Your task to perform on an android device: Clear all items from cart on bestbuy.com. Search for "logitech g pro" on bestbuy.com, select the first entry, add it to the cart, then select checkout. Image 0: 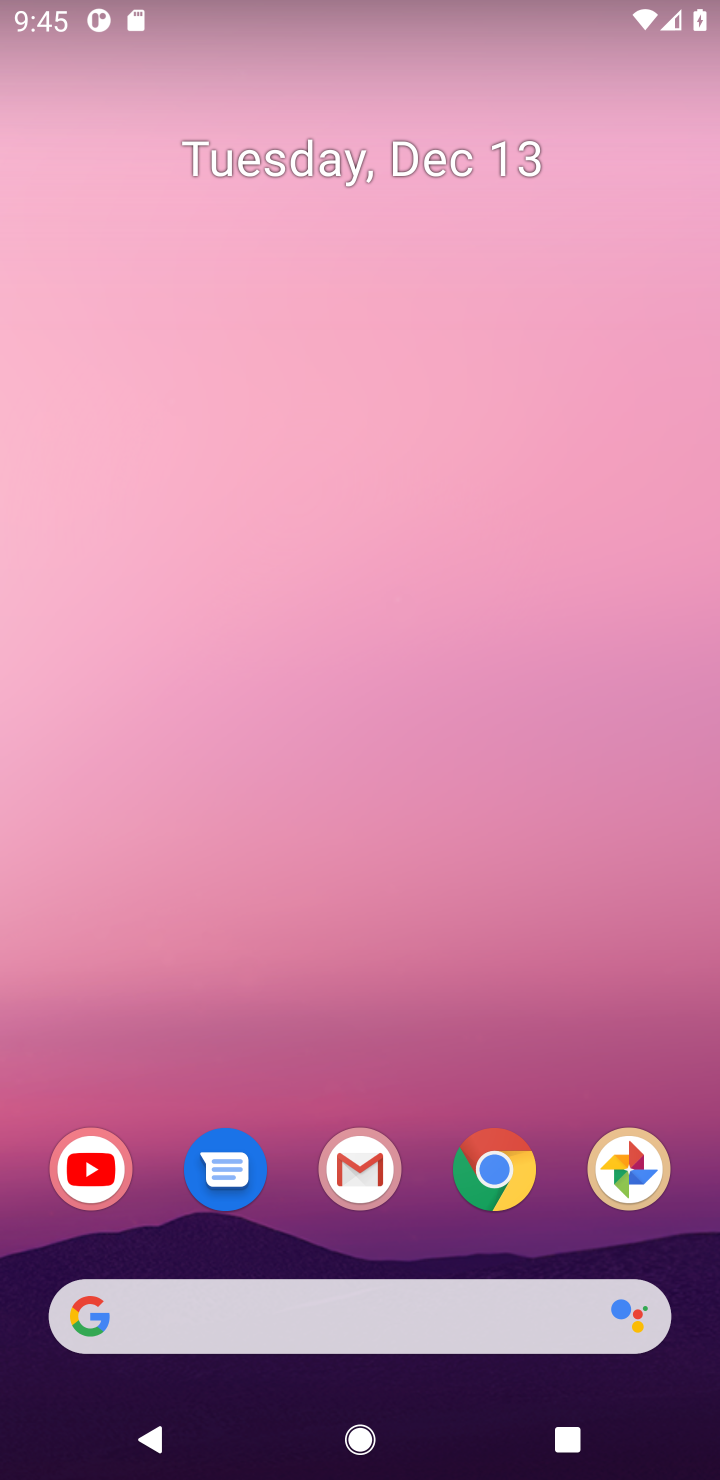
Step 0: click (506, 1140)
Your task to perform on an android device: Clear all items from cart on bestbuy.com. Search for "logitech g pro" on bestbuy.com, select the first entry, add it to the cart, then select checkout. Image 1: 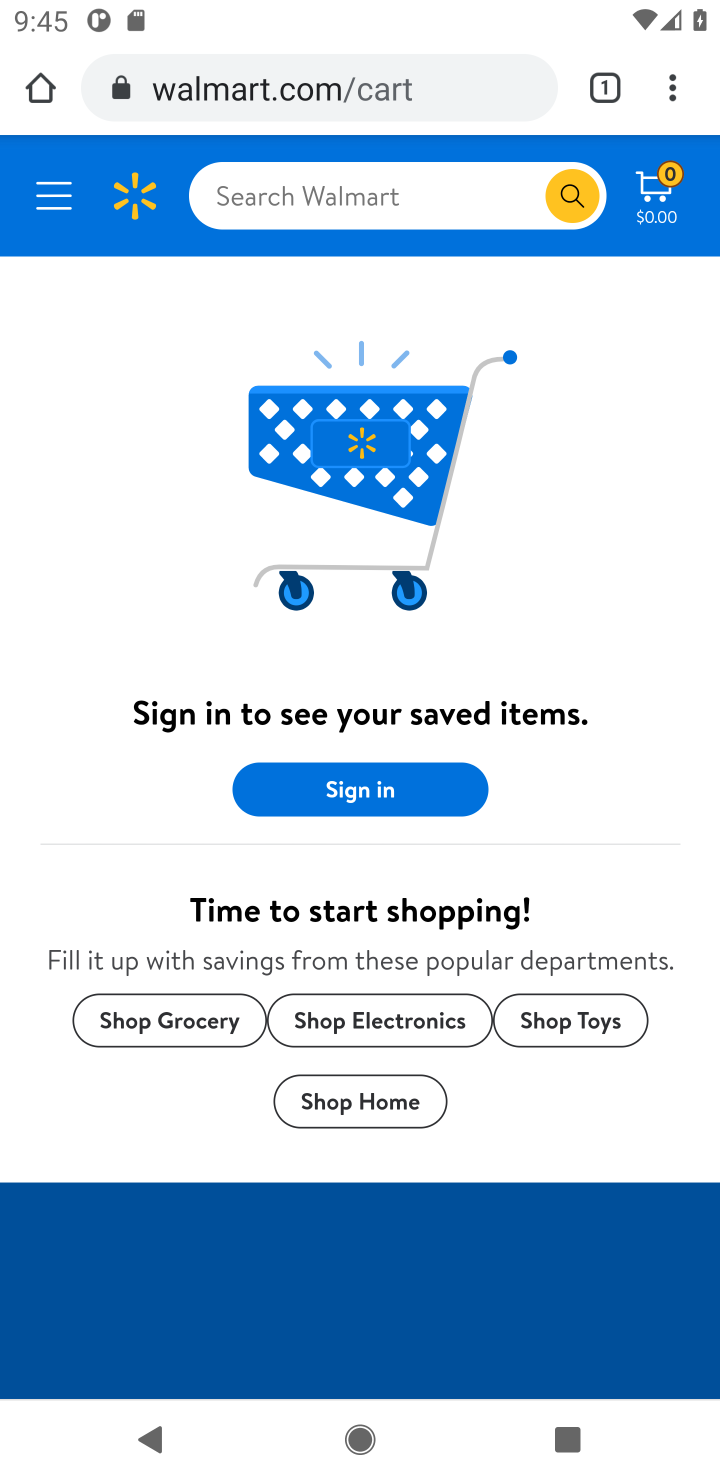
Step 1: press home button
Your task to perform on an android device: Clear all items from cart on bestbuy.com. Search for "logitech g pro" on bestbuy.com, select the first entry, add it to the cart, then select checkout. Image 2: 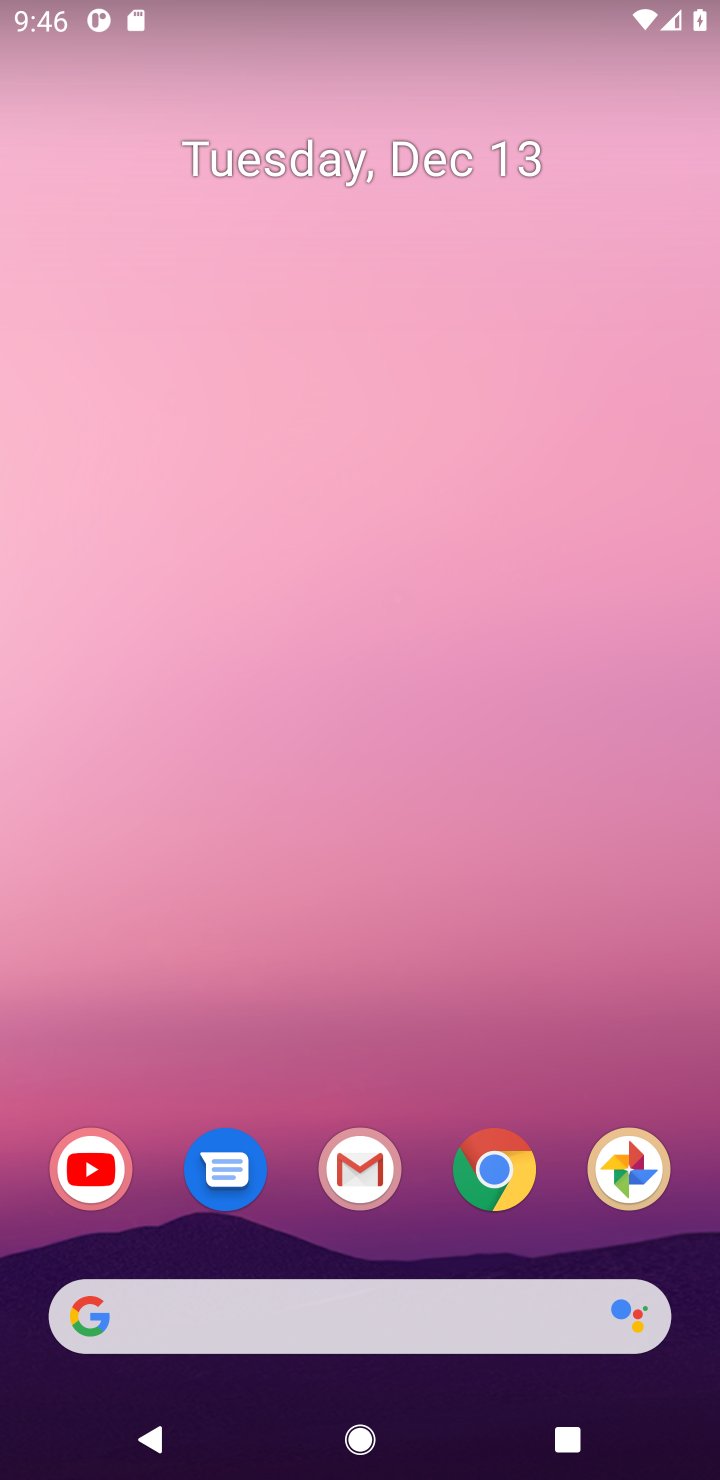
Step 2: click (509, 1195)
Your task to perform on an android device: Clear all items from cart on bestbuy.com. Search for "logitech g pro" on bestbuy.com, select the first entry, add it to the cart, then select checkout. Image 3: 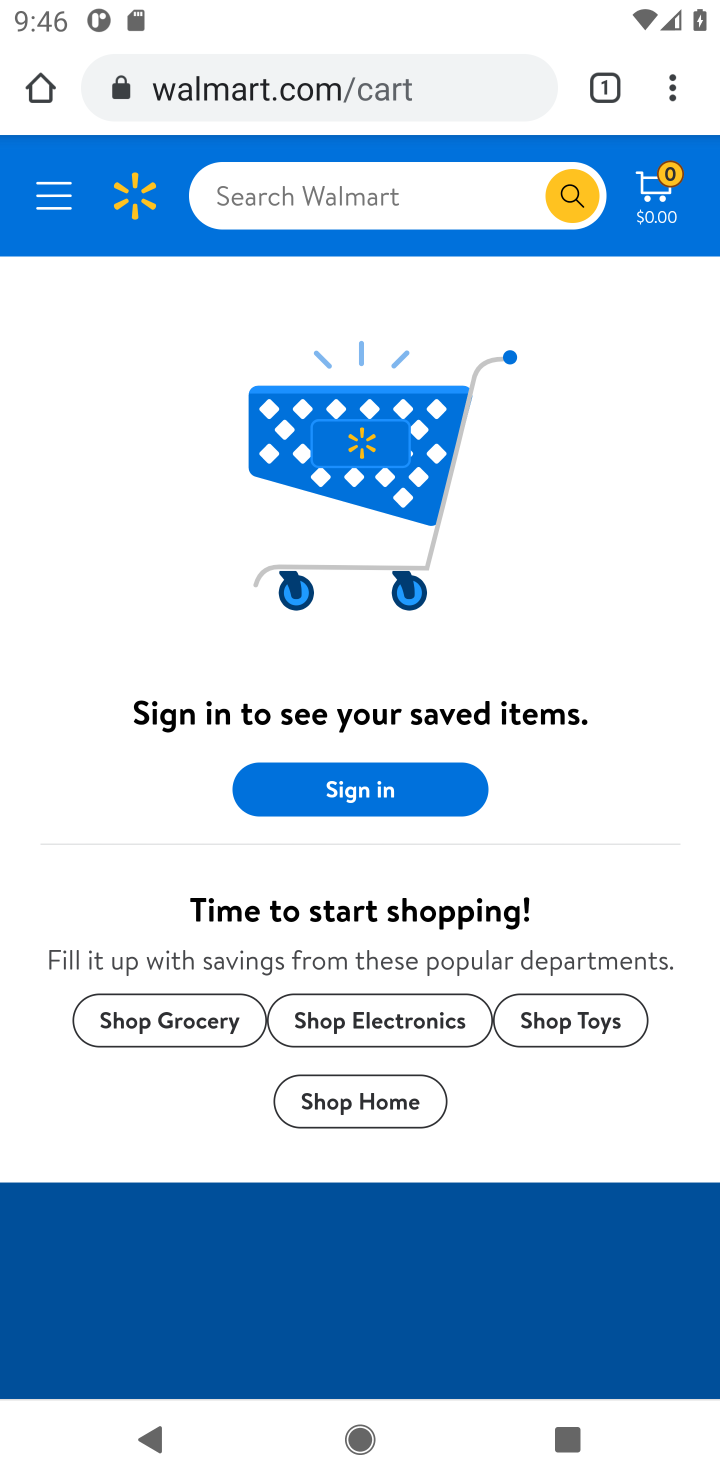
Step 3: click (227, 74)
Your task to perform on an android device: Clear all items from cart on bestbuy.com. Search for "logitech g pro" on bestbuy.com, select the first entry, add it to the cart, then select checkout. Image 4: 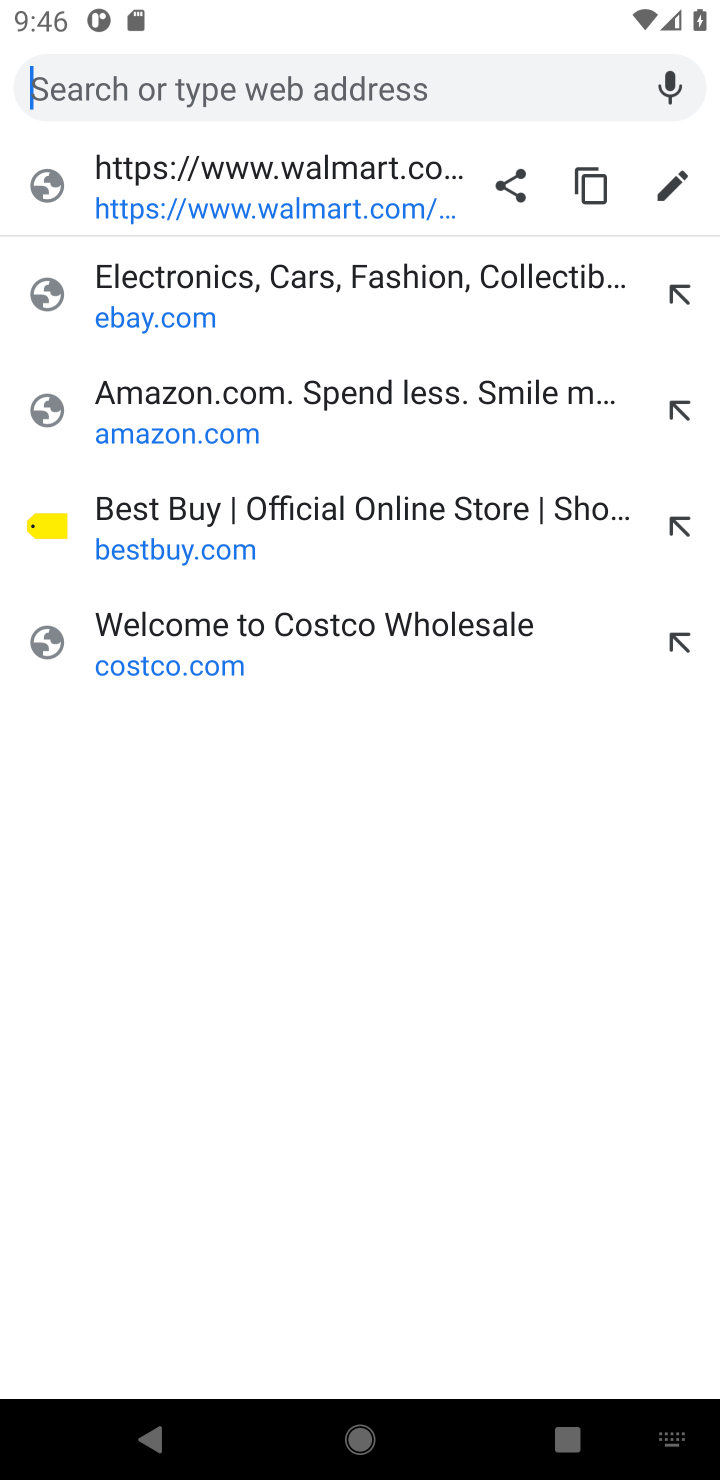
Step 4: type "bestbuy"
Your task to perform on an android device: Clear all items from cart on bestbuy.com. Search for "logitech g pro" on bestbuy.com, select the first entry, add it to the cart, then select checkout. Image 5: 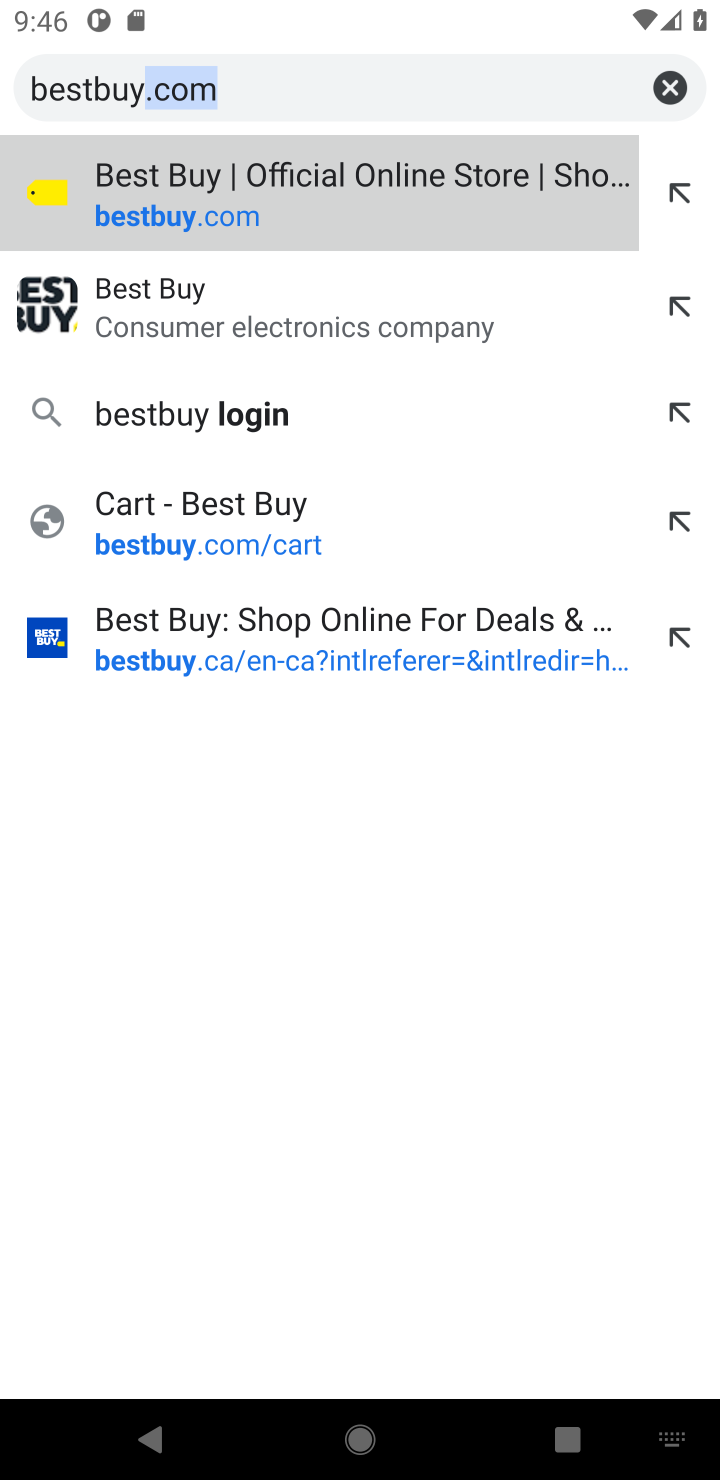
Step 5: click (250, 227)
Your task to perform on an android device: Clear all items from cart on bestbuy.com. Search for "logitech g pro" on bestbuy.com, select the first entry, add it to the cart, then select checkout. Image 6: 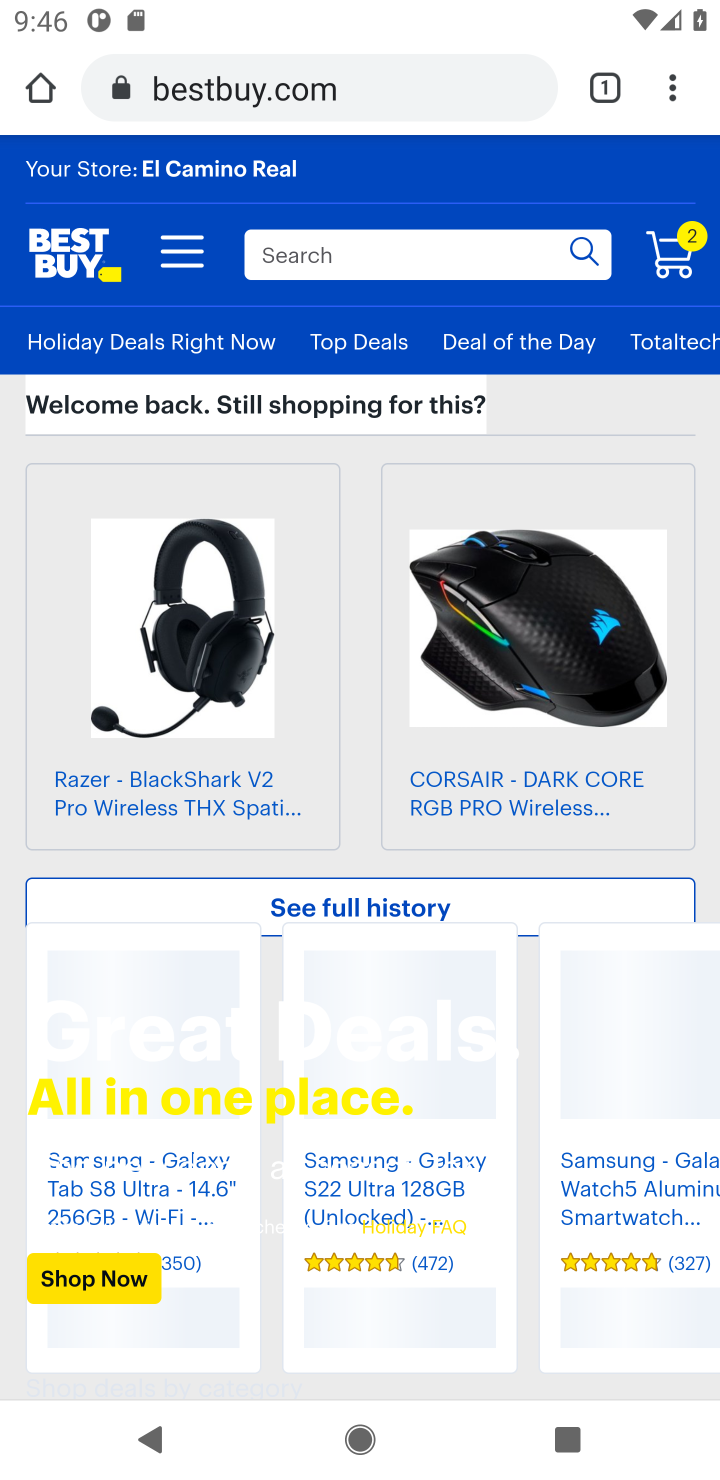
Step 6: click (318, 266)
Your task to perform on an android device: Clear all items from cart on bestbuy.com. Search for "logitech g pro" on bestbuy.com, select the first entry, add it to the cart, then select checkout. Image 7: 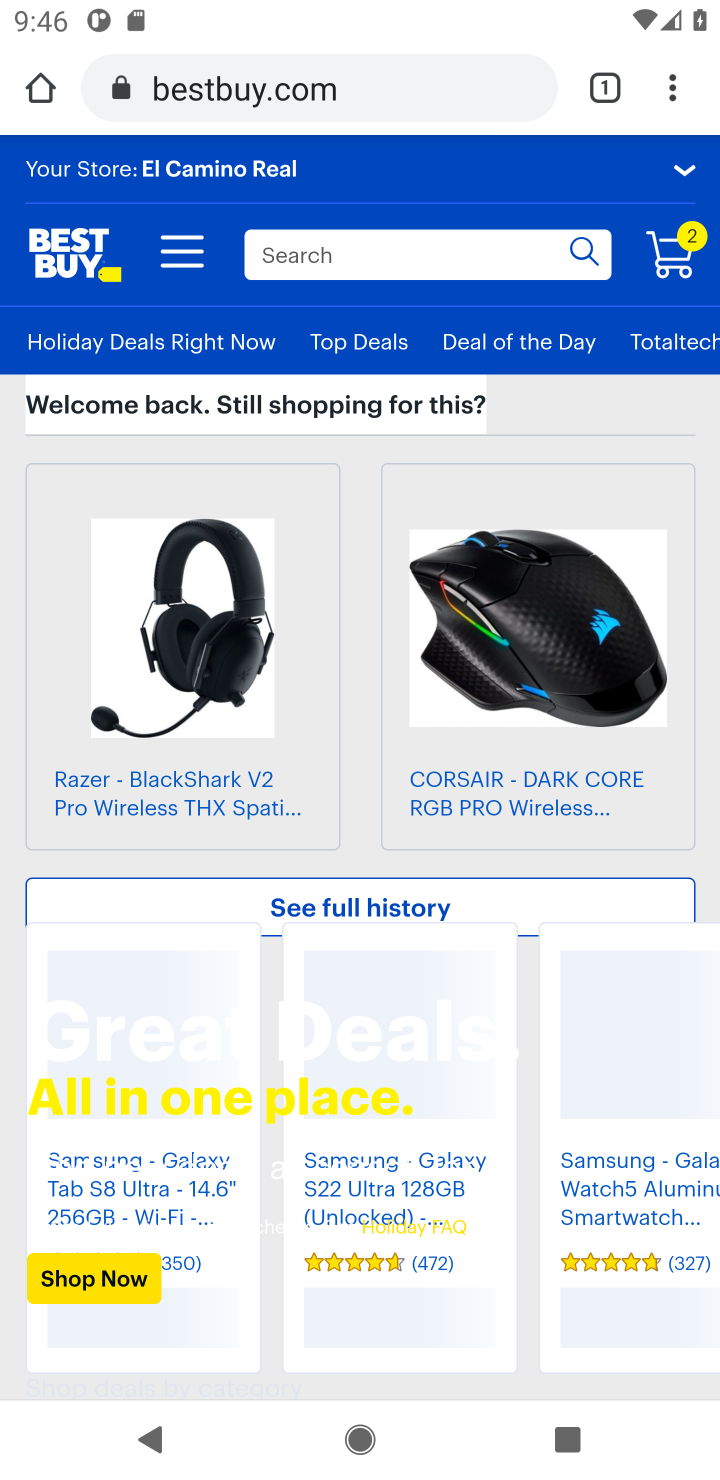
Step 7: type "logitech g pro"
Your task to perform on an android device: Clear all items from cart on bestbuy.com. Search for "logitech g pro" on bestbuy.com, select the first entry, add it to the cart, then select checkout. Image 8: 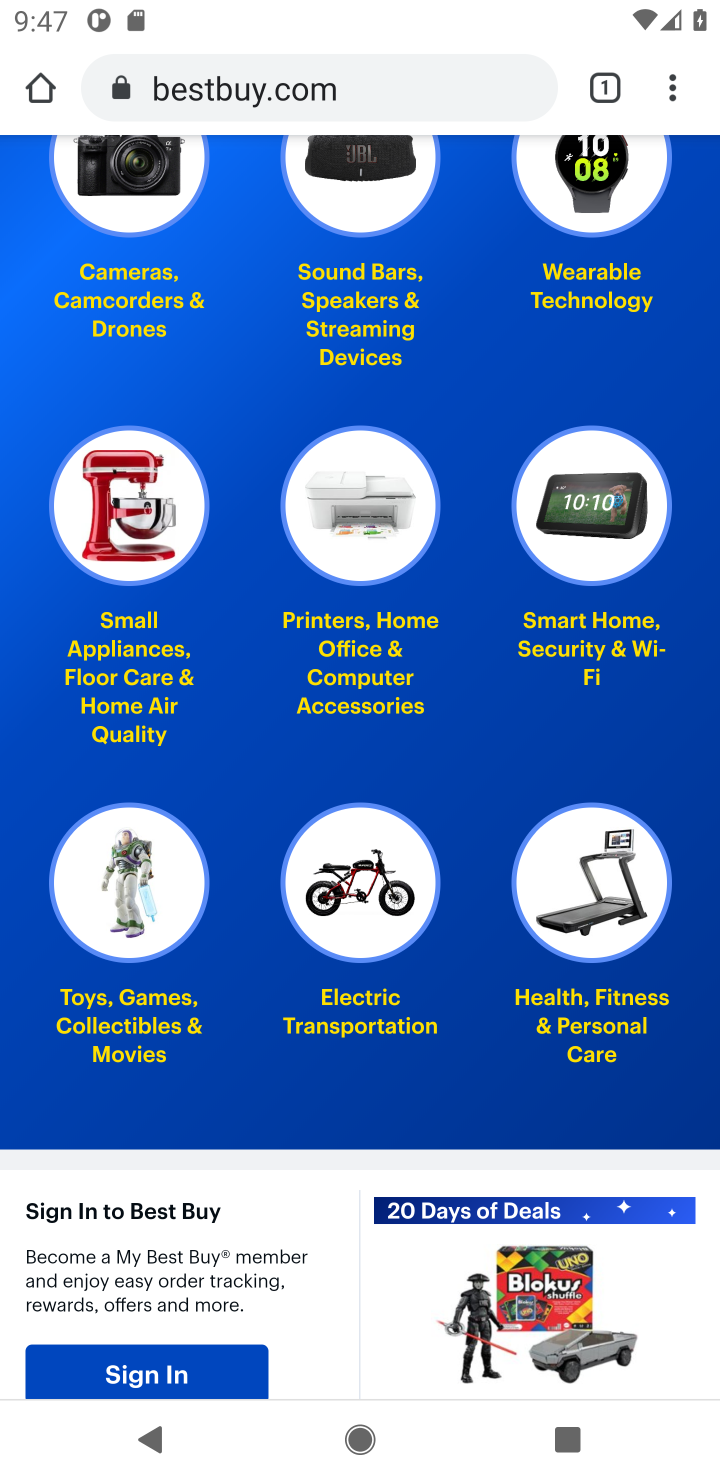
Step 8: drag from (352, 333) to (277, 1353)
Your task to perform on an android device: Clear all items from cart on bestbuy.com. Search for "logitech g pro" on bestbuy.com, select the first entry, add it to the cart, then select checkout. Image 9: 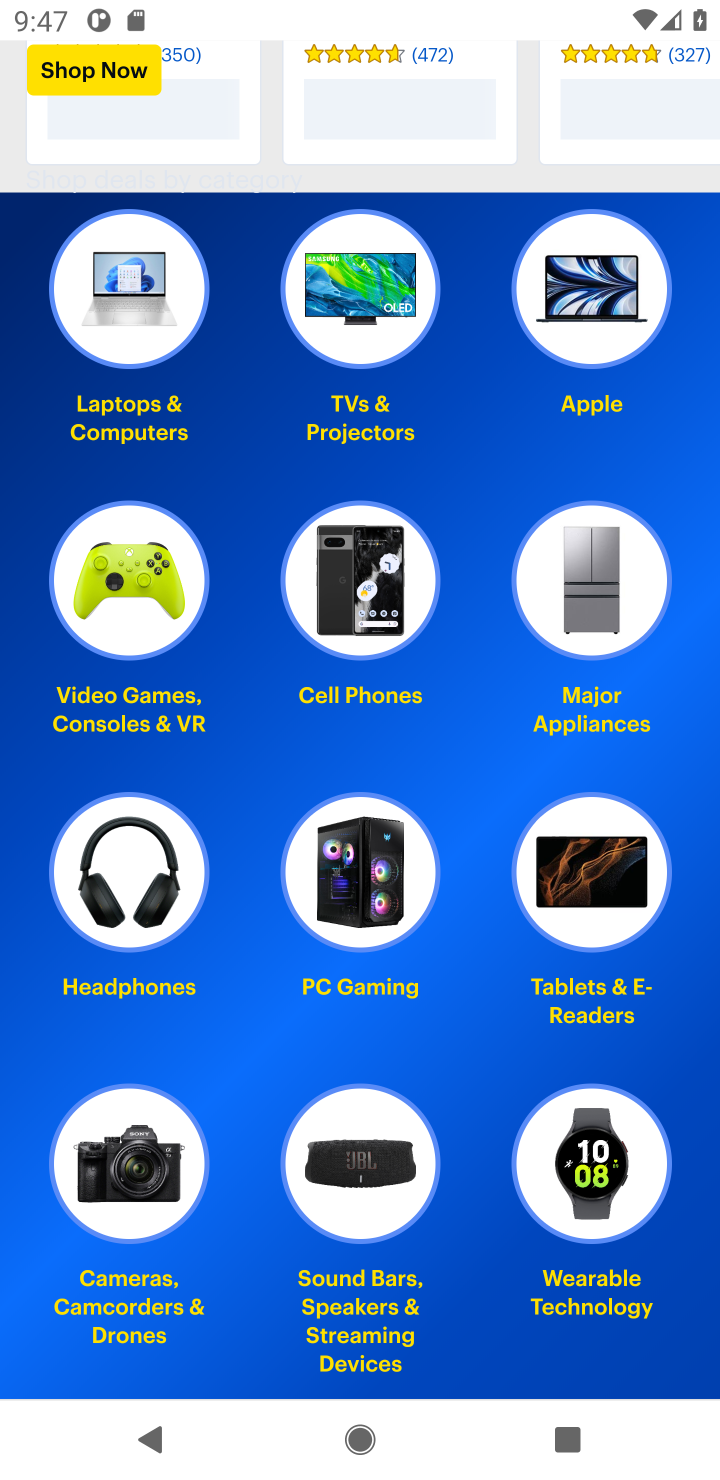
Step 9: drag from (272, 120) to (401, 1373)
Your task to perform on an android device: Clear all items from cart on bestbuy.com. Search for "logitech g pro" on bestbuy.com, select the first entry, add it to the cart, then select checkout. Image 10: 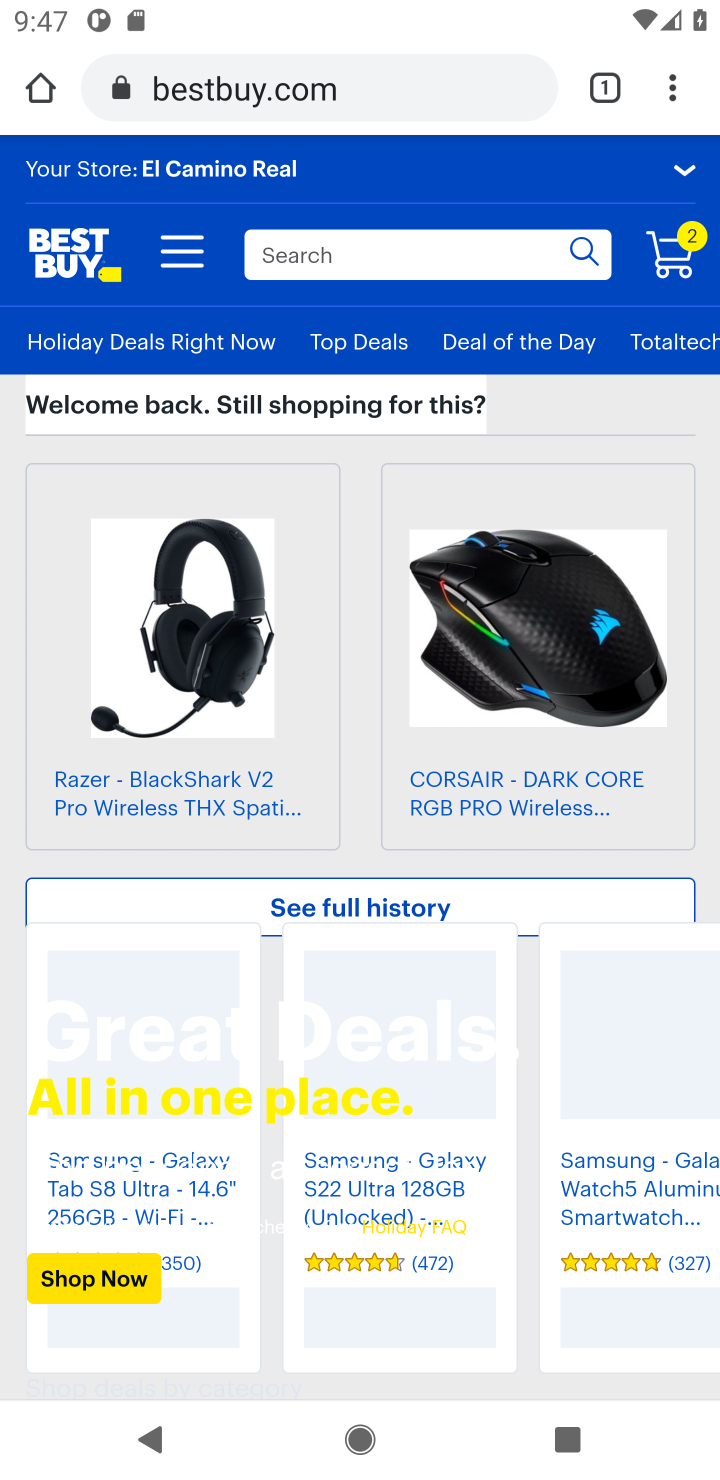
Step 10: click (353, 252)
Your task to perform on an android device: Clear all items from cart on bestbuy.com. Search for "logitech g pro" on bestbuy.com, select the first entry, add it to the cart, then select checkout. Image 11: 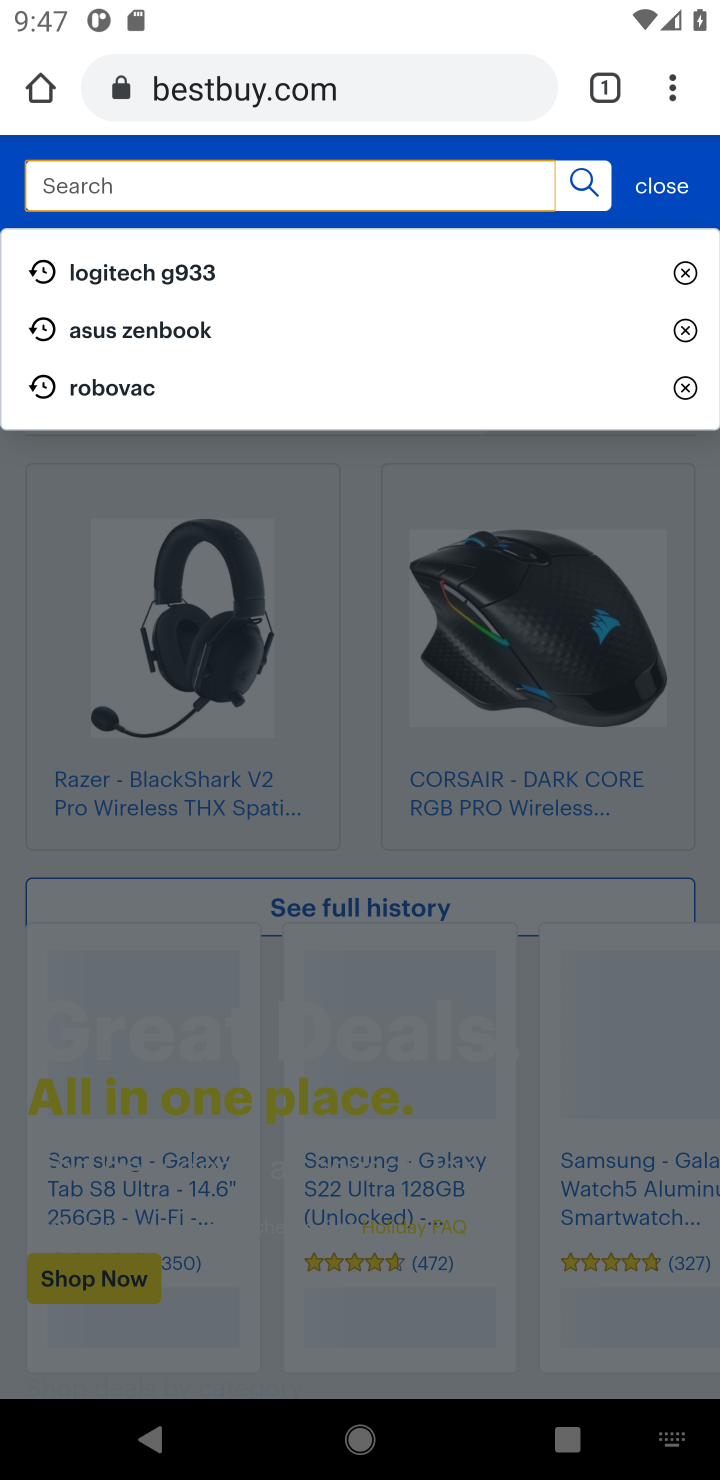
Step 11: type "logitech g pro"
Your task to perform on an android device: Clear all items from cart on bestbuy.com. Search for "logitech g pro" on bestbuy.com, select the first entry, add it to the cart, then select checkout. Image 12: 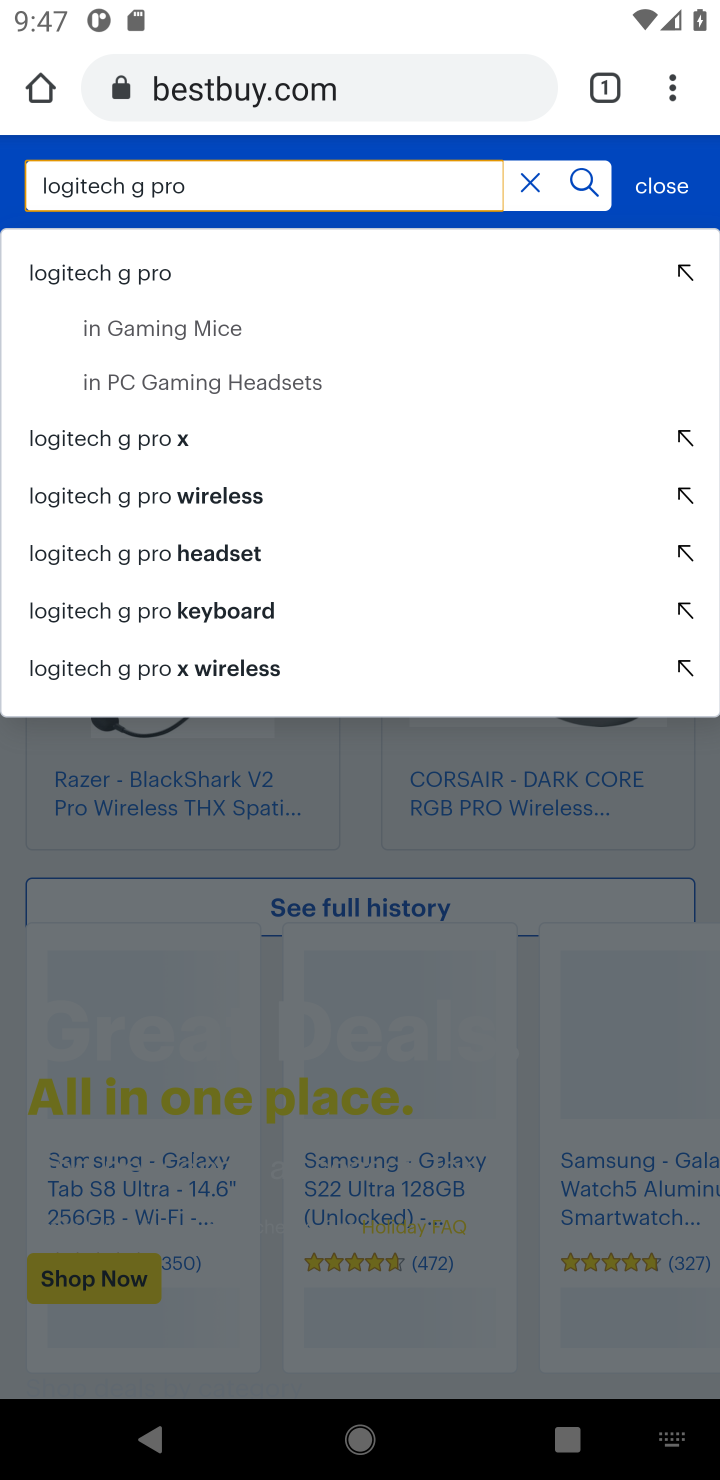
Step 12: click (567, 188)
Your task to perform on an android device: Clear all items from cart on bestbuy.com. Search for "logitech g pro" on bestbuy.com, select the first entry, add it to the cart, then select checkout. Image 13: 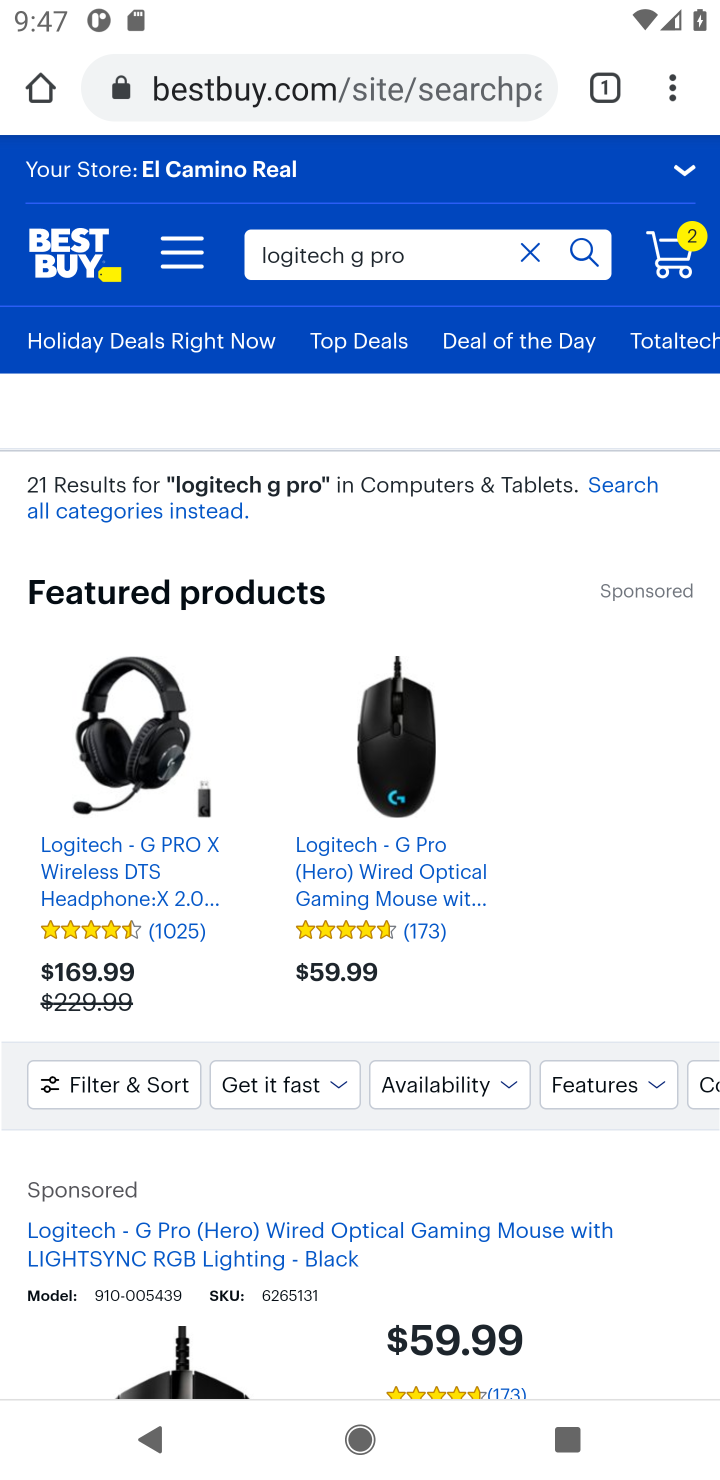
Step 13: click (134, 884)
Your task to perform on an android device: Clear all items from cart on bestbuy.com. Search for "logitech g pro" on bestbuy.com, select the first entry, add it to the cart, then select checkout. Image 14: 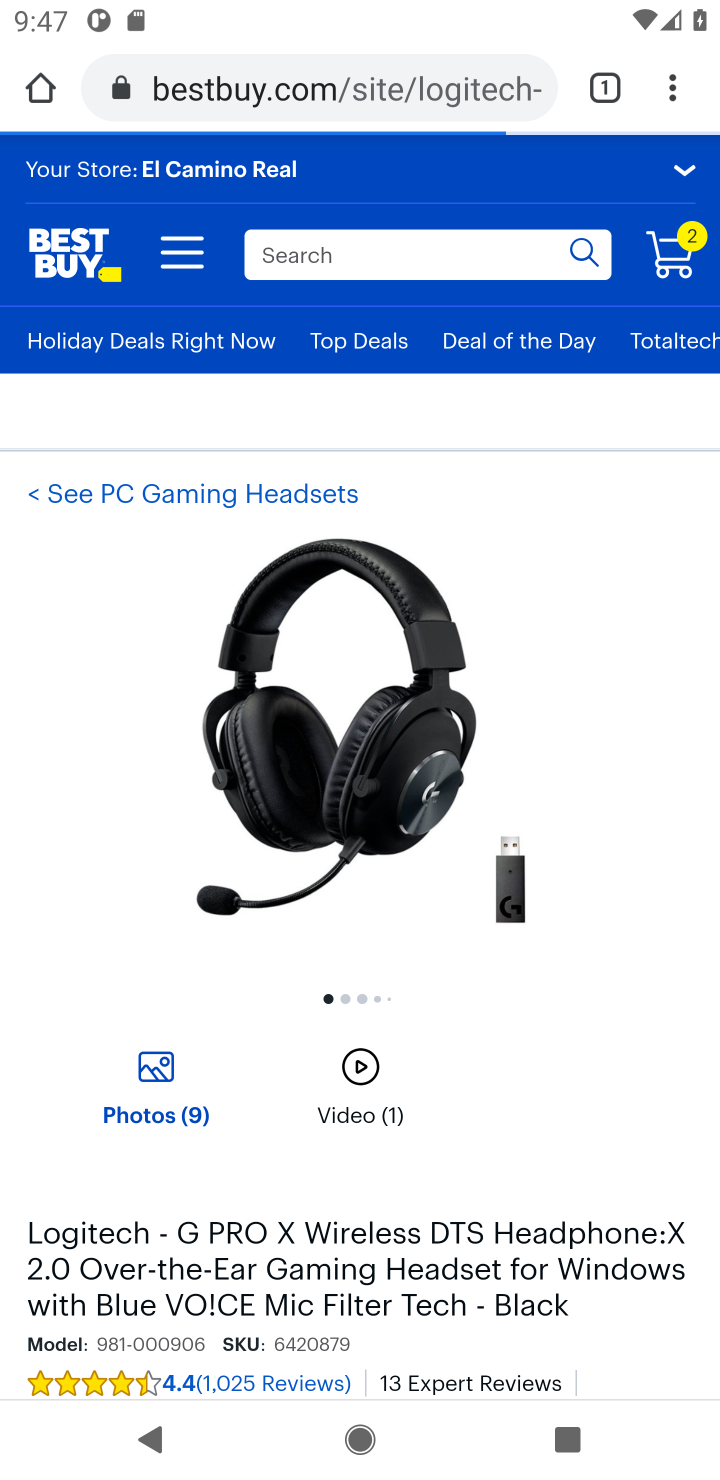
Step 14: drag from (386, 1148) to (260, 442)
Your task to perform on an android device: Clear all items from cart on bestbuy.com. Search for "logitech g pro" on bestbuy.com, select the first entry, add it to the cart, then select checkout. Image 15: 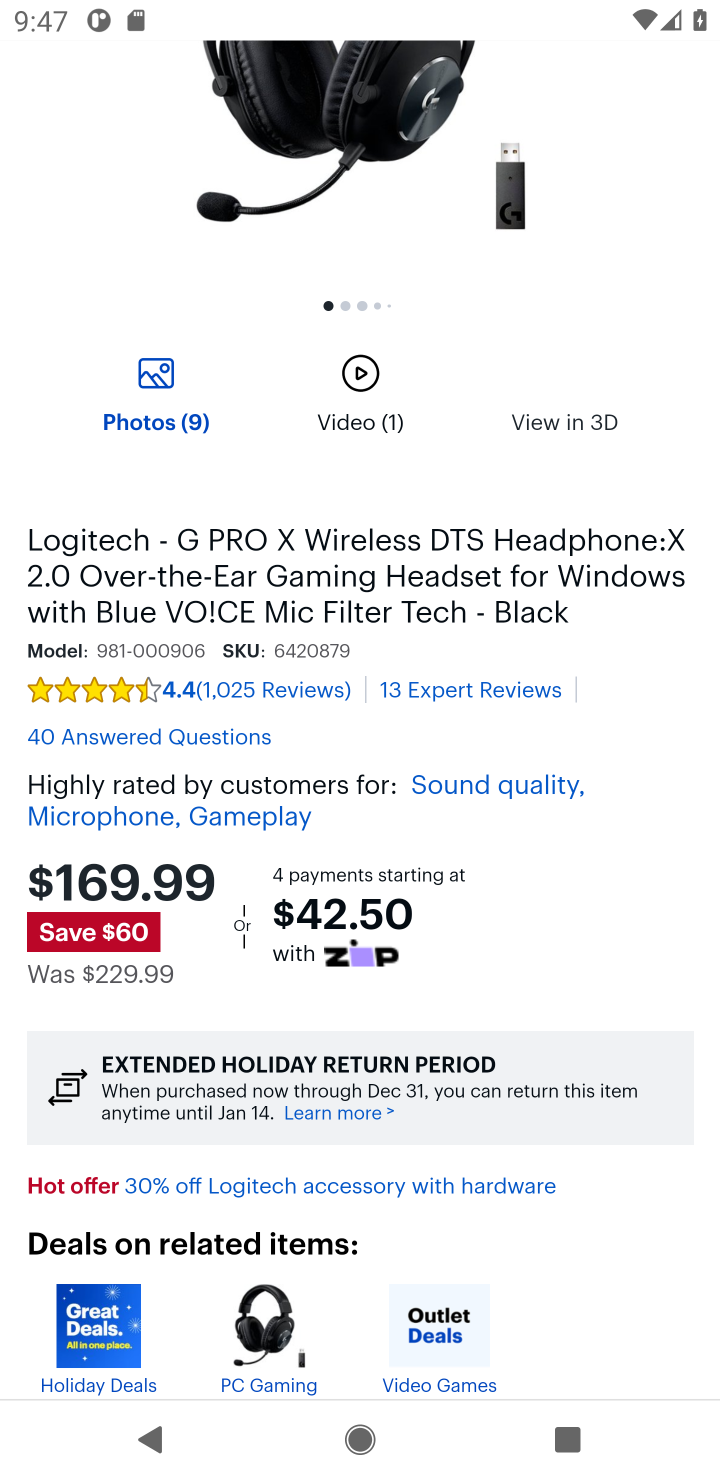
Step 15: drag from (390, 1106) to (310, 109)
Your task to perform on an android device: Clear all items from cart on bestbuy.com. Search for "logitech g pro" on bestbuy.com, select the first entry, add it to the cart, then select checkout. Image 16: 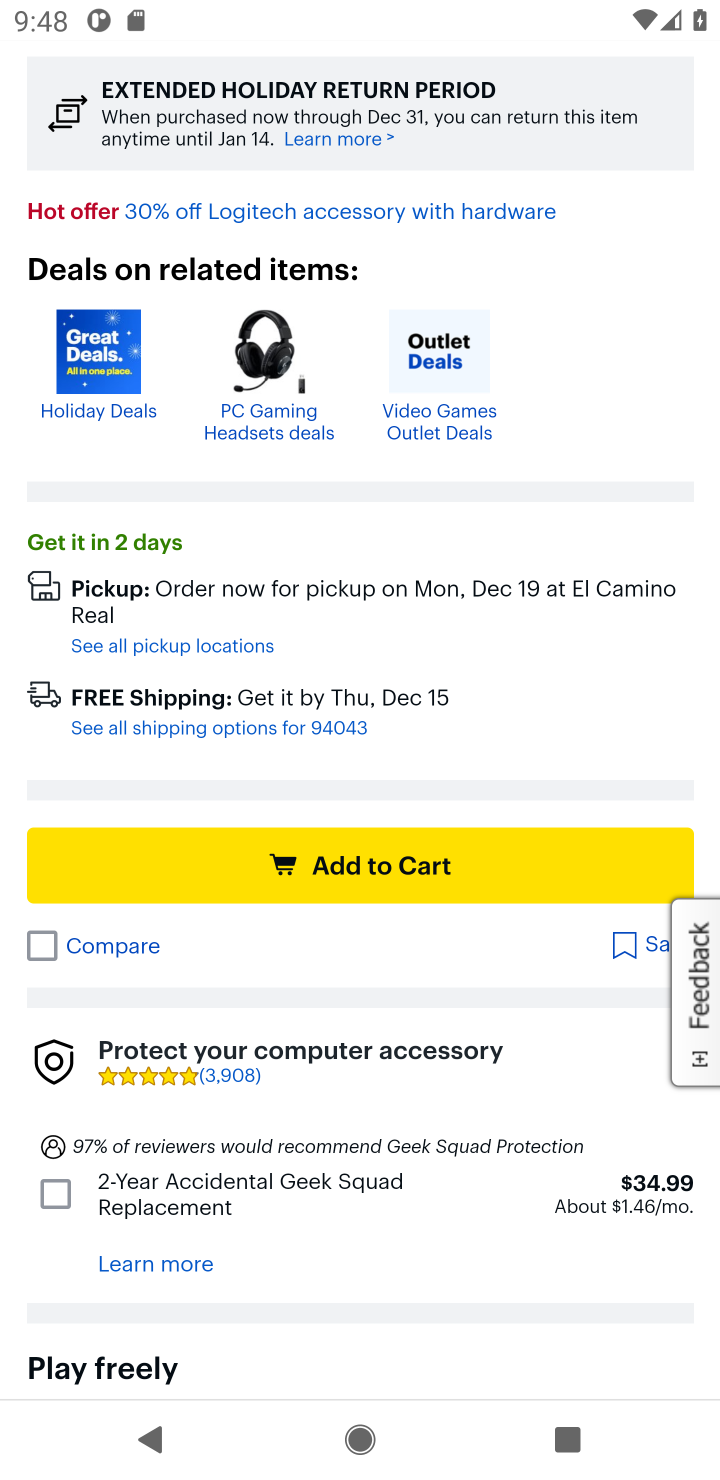
Step 16: click (476, 842)
Your task to perform on an android device: Clear all items from cart on bestbuy.com. Search for "logitech g pro" on bestbuy.com, select the first entry, add it to the cart, then select checkout. Image 17: 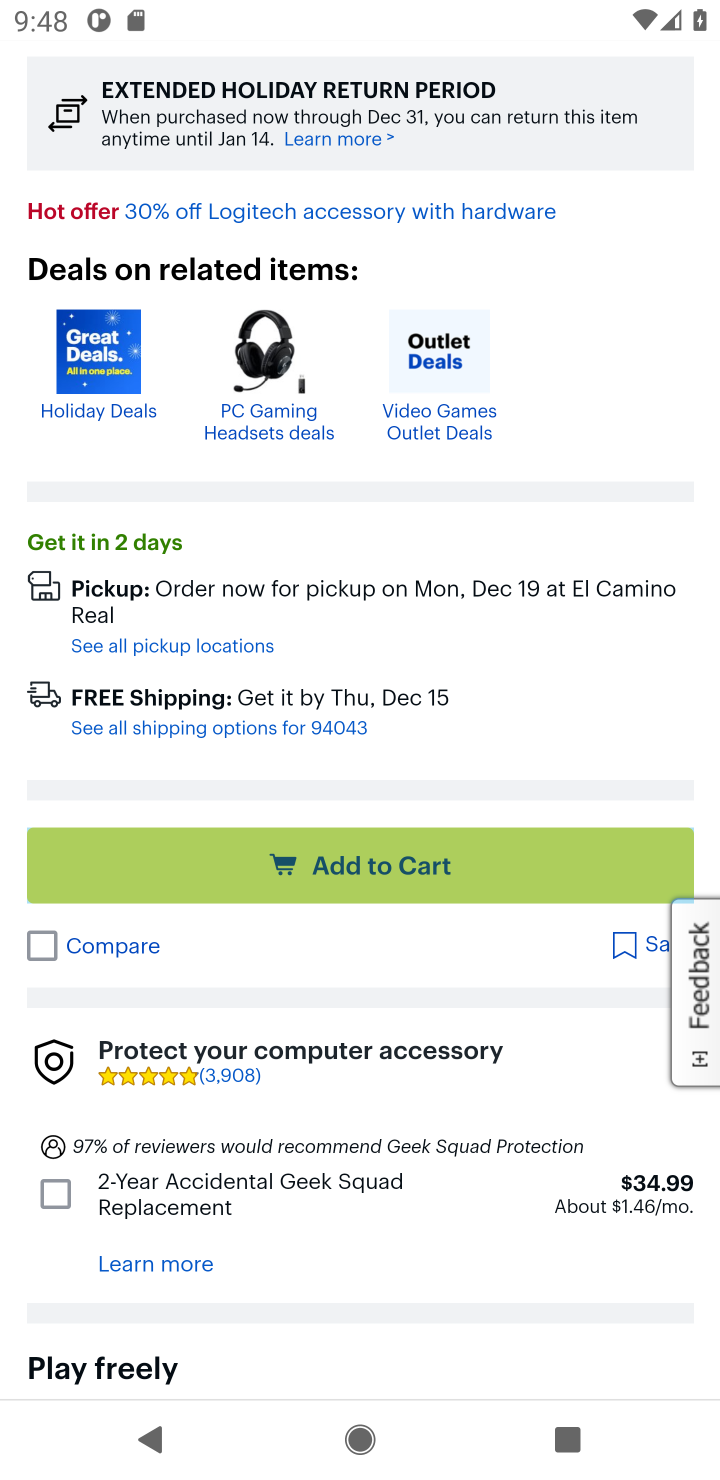
Step 17: task complete